Your task to perform on an android device: turn vacation reply on in the gmail app Image 0: 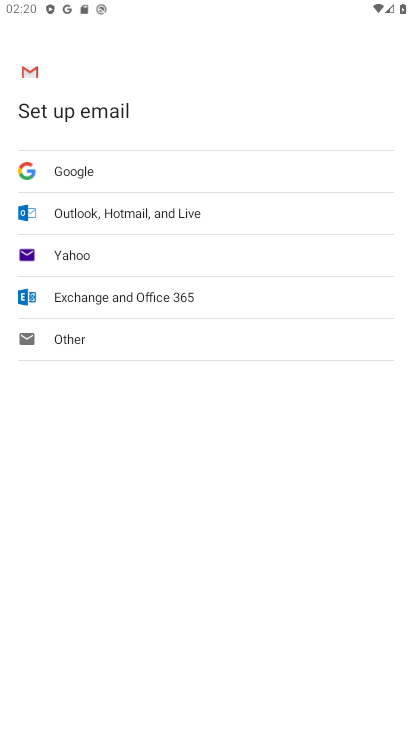
Step 0: press home button
Your task to perform on an android device: turn vacation reply on in the gmail app Image 1: 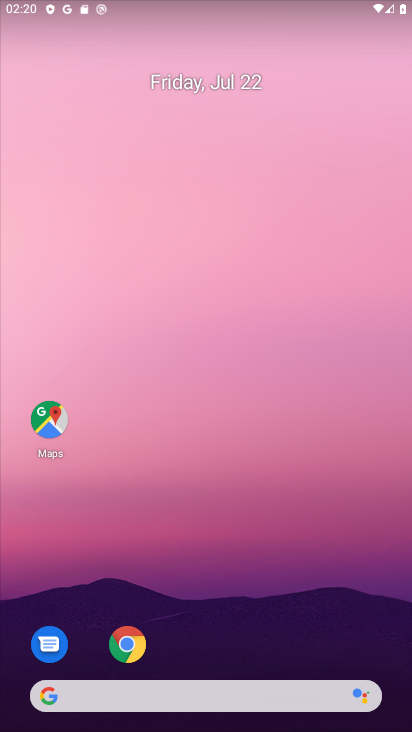
Step 1: drag from (167, 656) to (158, 173)
Your task to perform on an android device: turn vacation reply on in the gmail app Image 2: 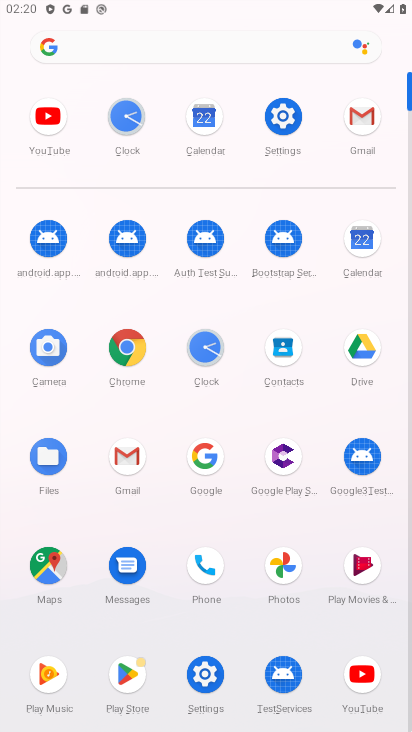
Step 2: click (367, 119)
Your task to perform on an android device: turn vacation reply on in the gmail app Image 3: 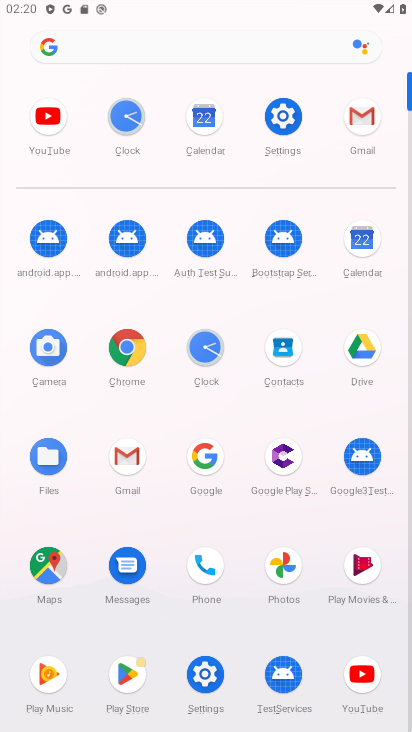
Step 3: click (367, 119)
Your task to perform on an android device: turn vacation reply on in the gmail app Image 4: 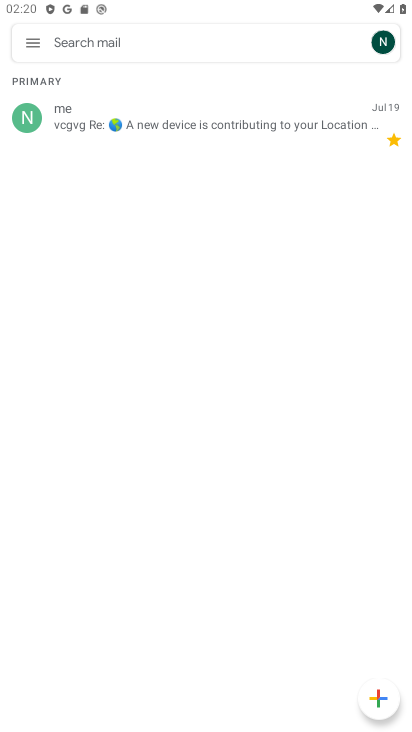
Step 4: click (30, 48)
Your task to perform on an android device: turn vacation reply on in the gmail app Image 5: 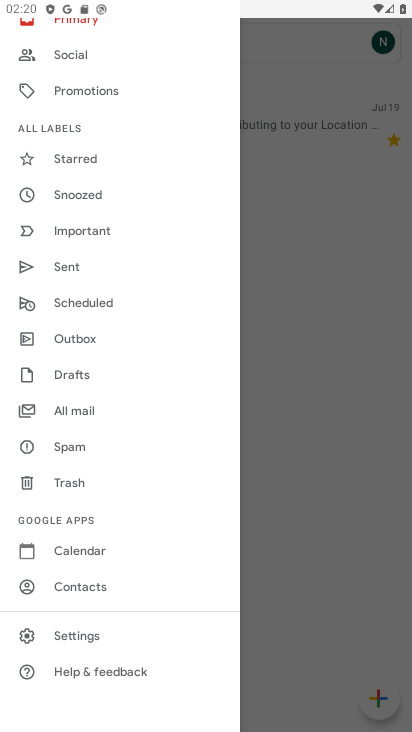
Step 5: click (100, 636)
Your task to perform on an android device: turn vacation reply on in the gmail app Image 6: 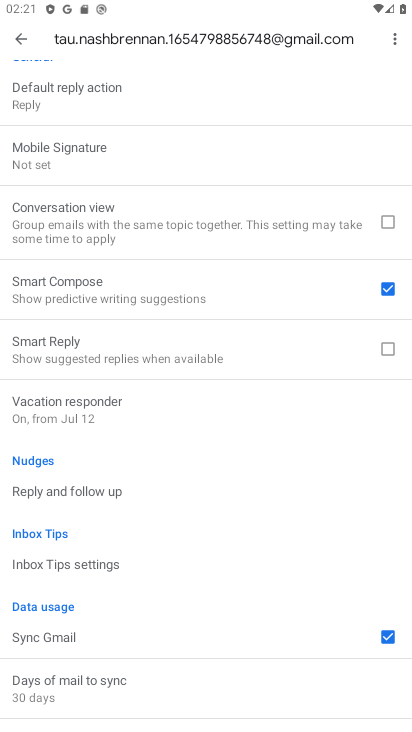
Step 6: click (125, 406)
Your task to perform on an android device: turn vacation reply on in the gmail app Image 7: 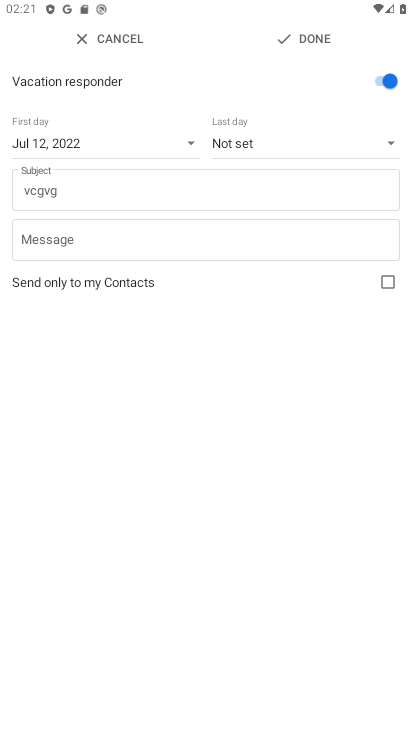
Step 7: click (321, 35)
Your task to perform on an android device: turn vacation reply on in the gmail app Image 8: 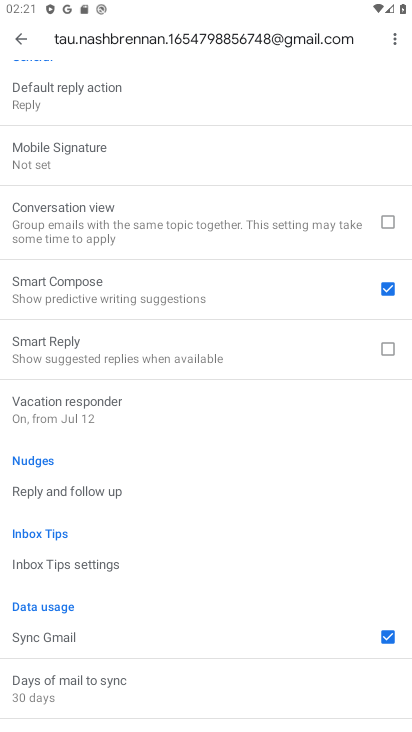
Step 8: task complete